Your task to perform on an android device: Open my contact list Image 0: 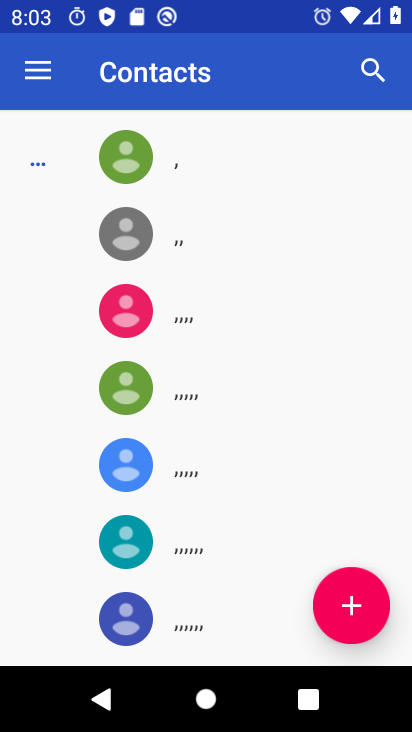
Step 0: press home button
Your task to perform on an android device: Open my contact list Image 1: 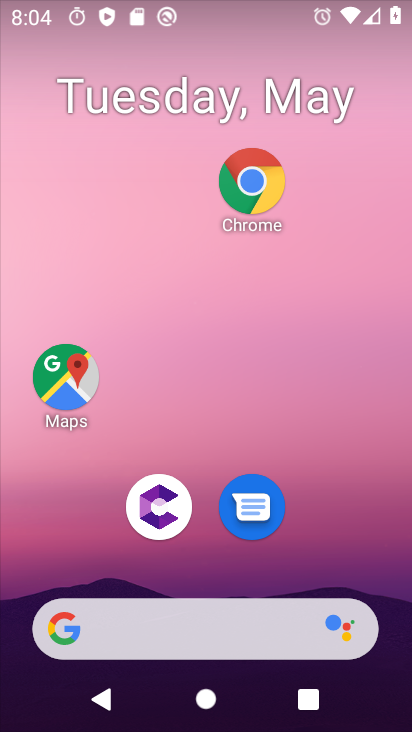
Step 1: drag from (80, 571) to (58, 95)
Your task to perform on an android device: Open my contact list Image 2: 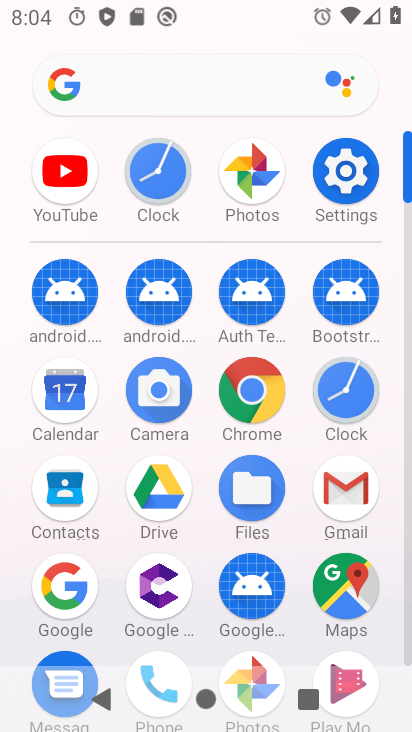
Step 2: click (63, 496)
Your task to perform on an android device: Open my contact list Image 3: 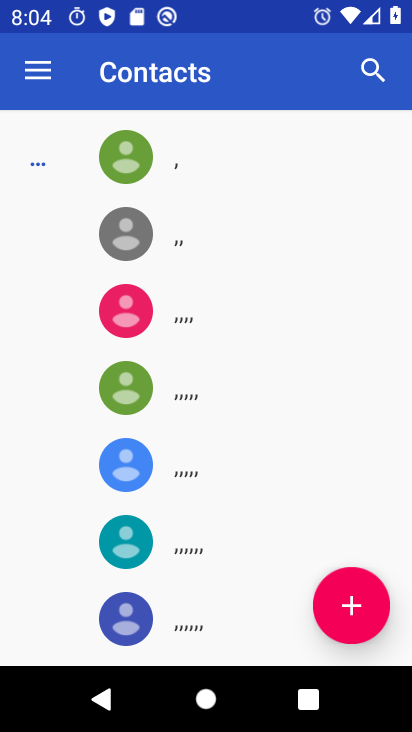
Step 3: task complete